Your task to perform on an android device: change the clock display to digital Image 0: 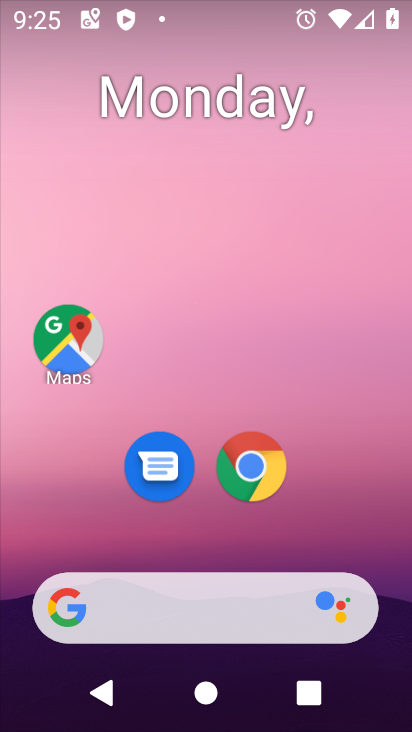
Step 0: drag from (370, 546) to (134, 43)
Your task to perform on an android device: change the clock display to digital Image 1: 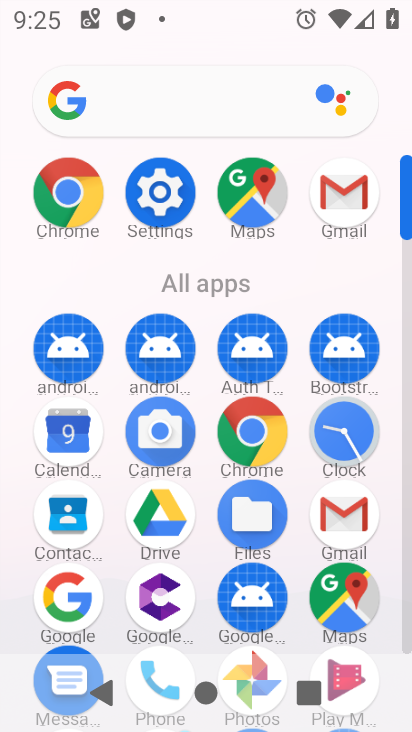
Step 1: click (329, 426)
Your task to perform on an android device: change the clock display to digital Image 2: 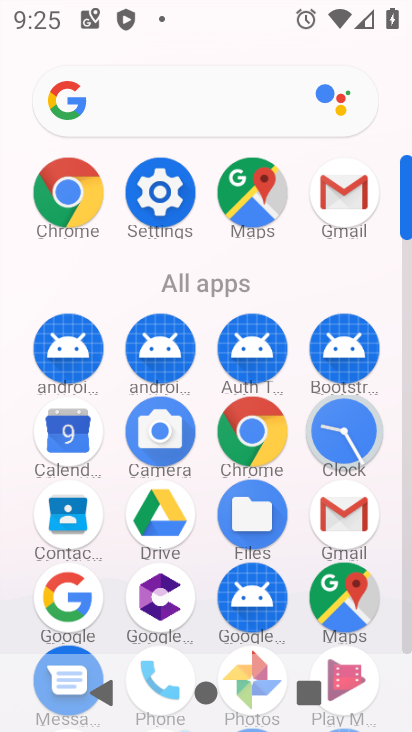
Step 2: click (356, 404)
Your task to perform on an android device: change the clock display to digital Image 3: 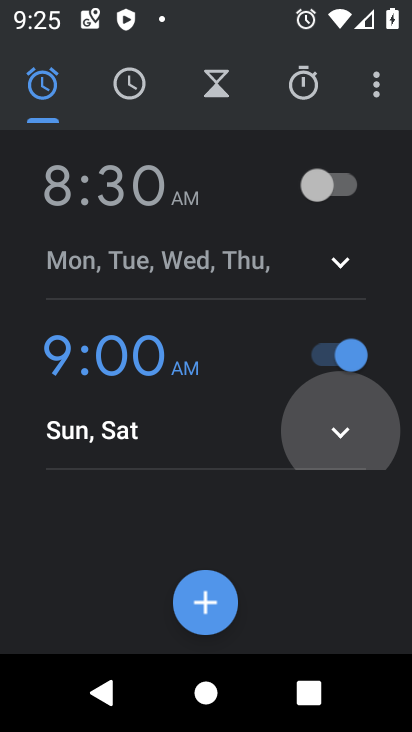
Step 3: click (357, 411)
Your task to perform on an android device: change the clock display to digital Image 4: 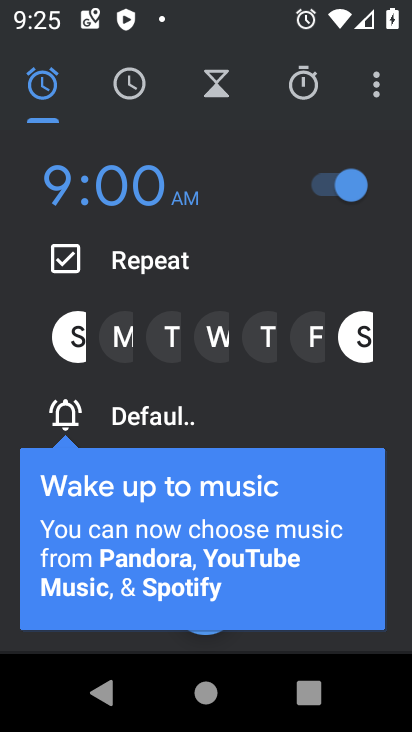
Step 4: click (44, 88)
Your task to perform on an android device: change the clock display to digital Image 5: 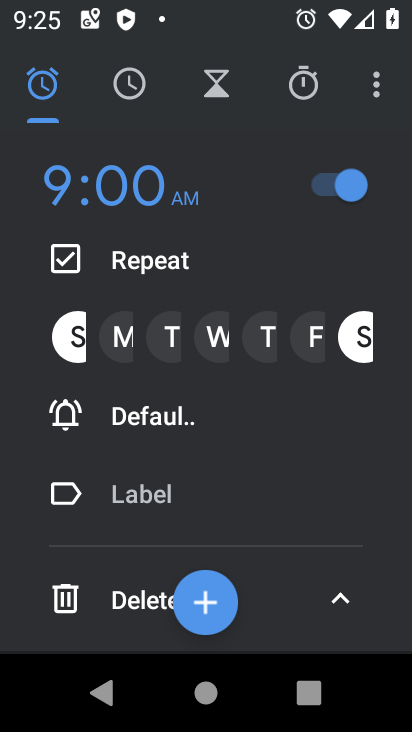
Step 5: click (347, 187)
Your task to perform on an android device: change the clock display to digital Image 6: 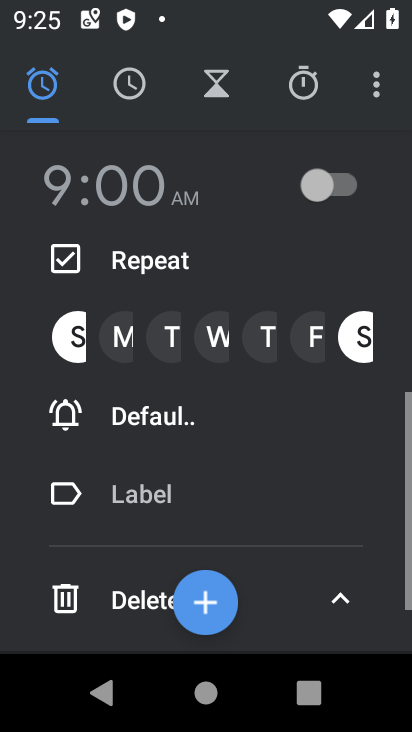
Step 6: click (316, 182)
Your task to perform on an android device: change the clock display to digital Image 7: 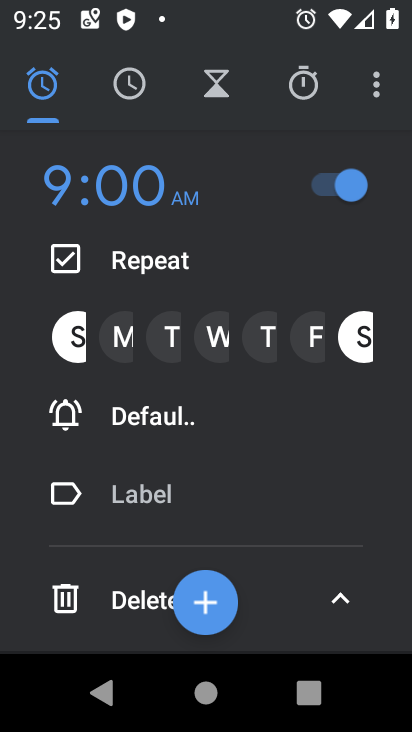
Step 7: task complete